Your task to perform on an android device: Open the Play Movies app and select the watchlist tab. Image 0: 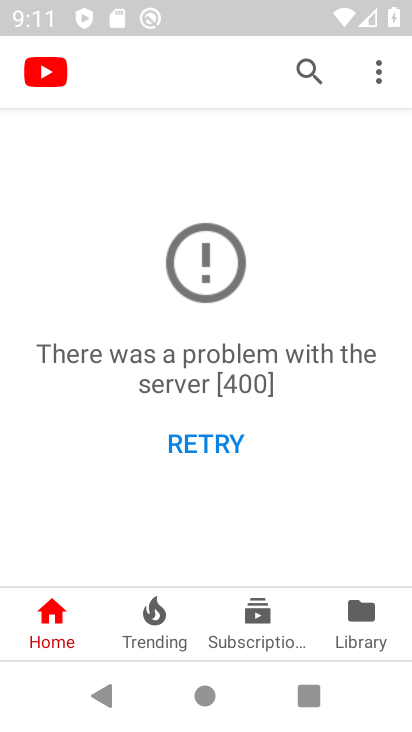
Step 0: press home button
Your task to perform on an android device: Open the Play Movies app and select the watchlist tab. Image 1: 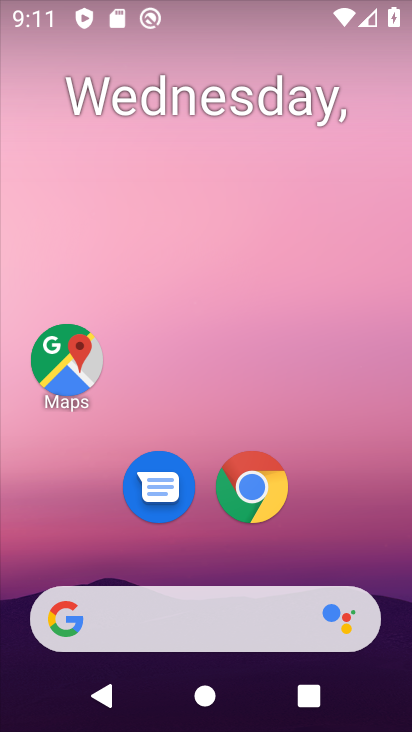
Step 1: drag from (154, 712) to (154, 63)
Your task to perform on an android device: Open the Play Movies app and select the watchlist tab. Image 2: 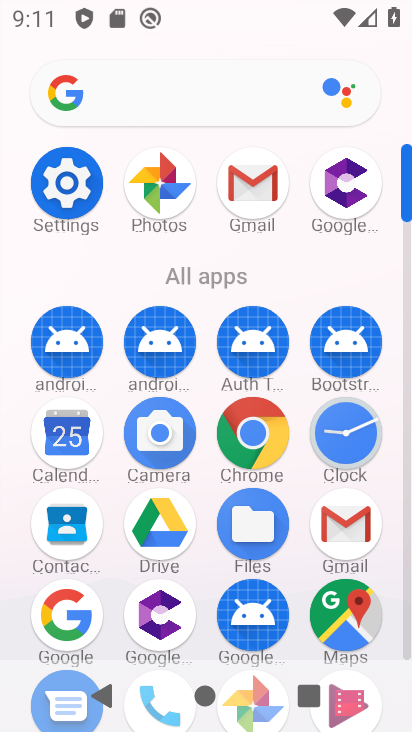
Step 2: drag from (335, 615) to (223, 51)
Your task to perform on an android device: Open the Play Movies app and select the watchlist tab. Image 3: 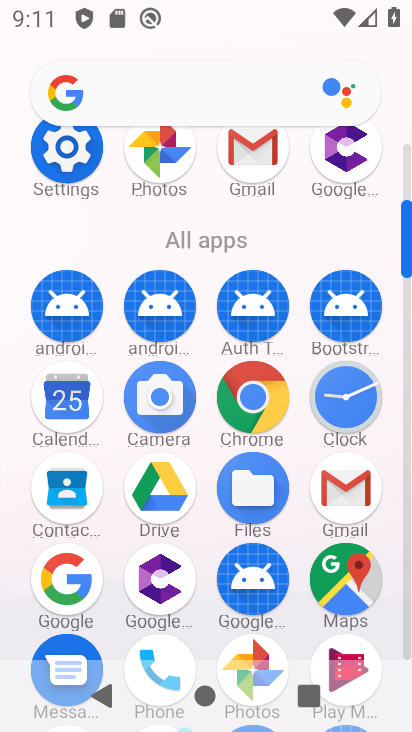
Step 3: click (341, 647)
Your task to perform on an android device: Open the Play Movies app and select the watchlist tab. Image 4: 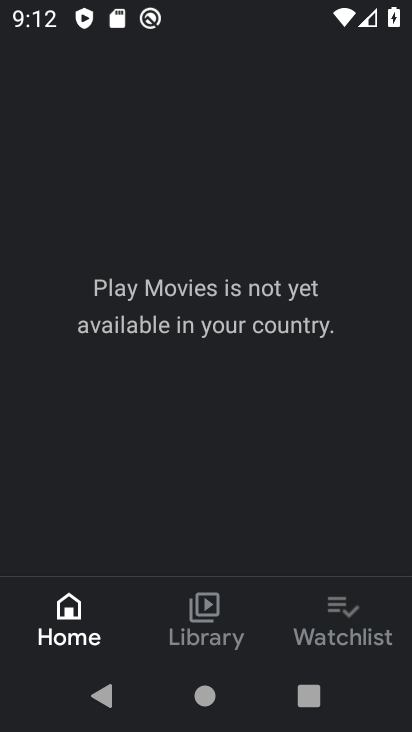
Step 4: click (352, 611)
Your task to perform on an android device: Open the Play Movies app and select the watchlist tab. Image 5: 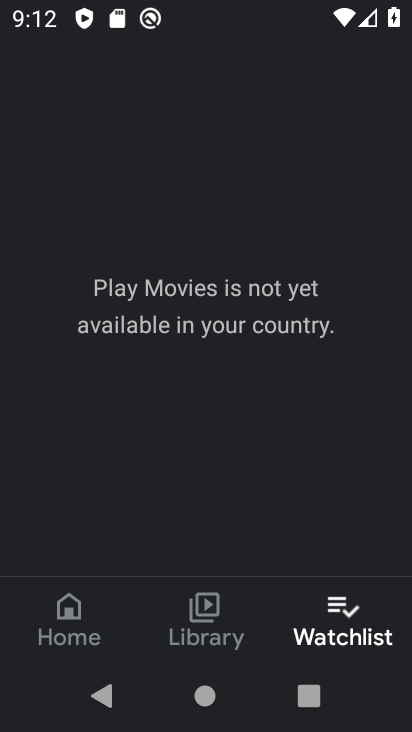
Step 5: task complete